Your task to perform on an android device: Go to notification settings Image 0: 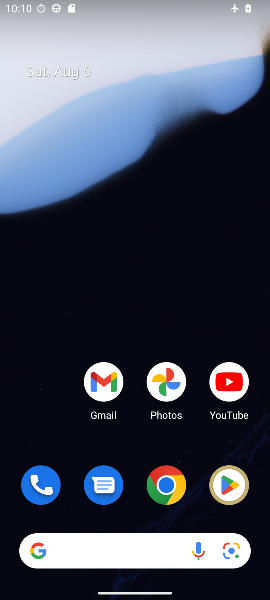
Step 0: drag from (125, 431) to (116, 0)
Your task to perform on an android device: Go to notification settings Image 1: 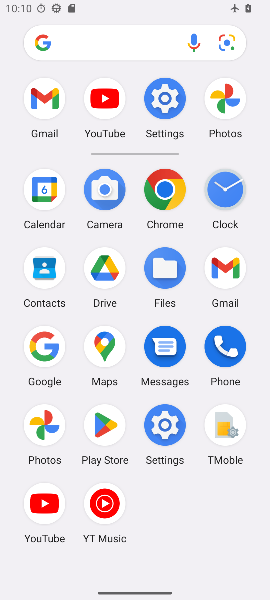
Step 1: click (166, 100)
Your task to perform on an android device: Go to notification settings Image 2: 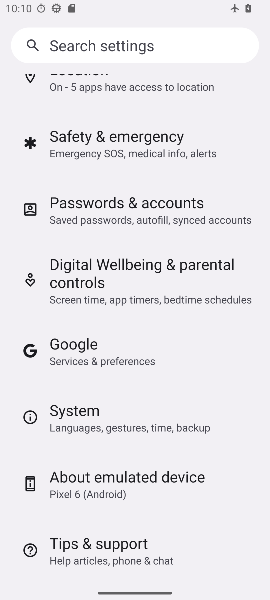
Step 2: drag from (149, 111) to (192, 518)
Your task to perform on an android device: Go to notification settings Image 3: 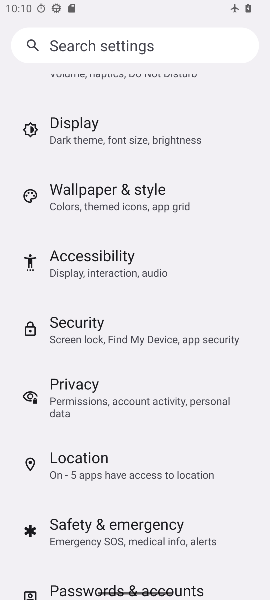
Step 3: drag from (121, 126) to (146, 480)
Your task to perform on an android device: Go to notification settings Image 4: 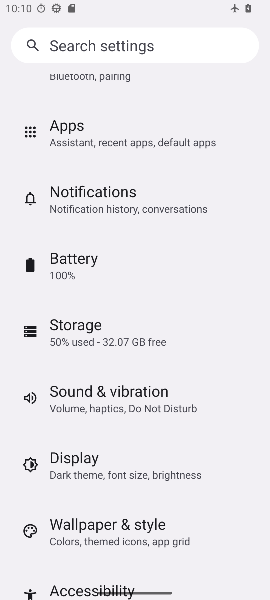
Step 4: click (101, 180)
Your task to perform on an android device: Go to notification settings Image 5: 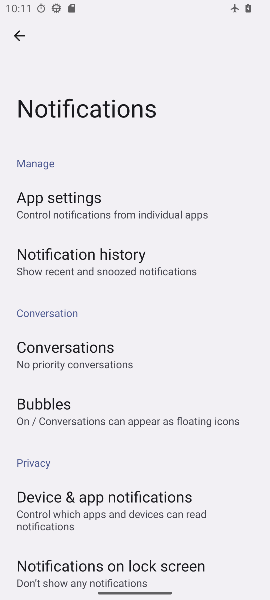
Step 5: task complete